Your task to perform on an android device: What's the news this month? Image 0: 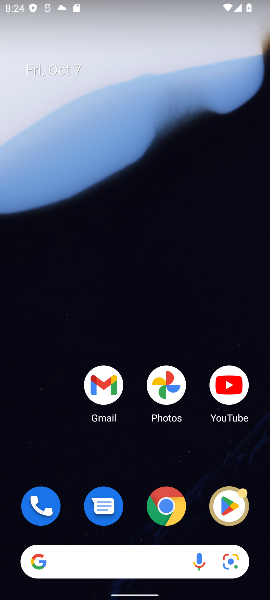
Step 0: click (164, 514)
Your task to perform on an android device: What's the news this month? Image 1: 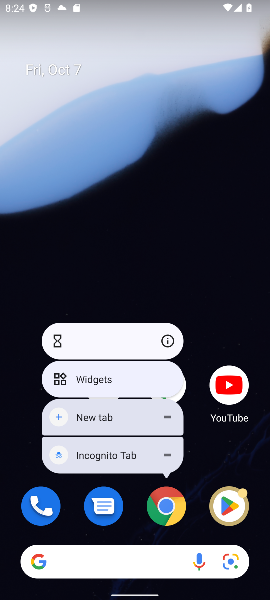
Step 1: click (172, 504)
Your task to perform on an android device: What's the news this month? Image 2: 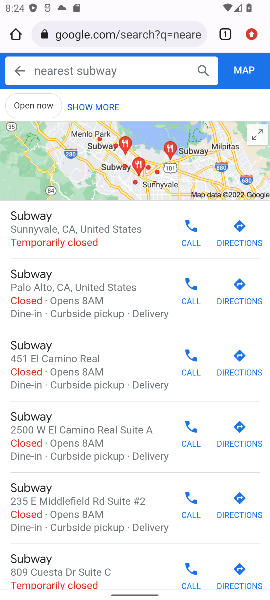
Step 2: click (113, 32)
Your task to perform on an android device: What's the news this month? Image 3: 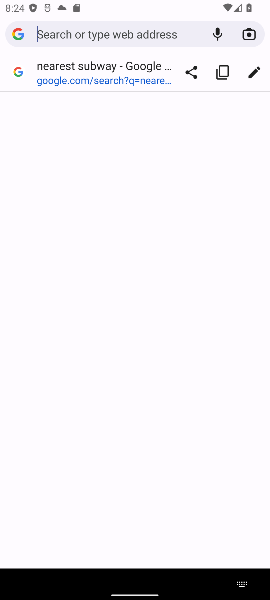
Step 3: type "news this month"
Your task to perform on an android device: What's the news this month? Image 4: 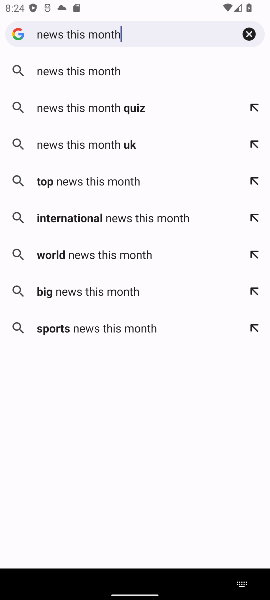
Step 4: click (77, 67)
Your task to perform on an android device: What's the news this month? Image 5: 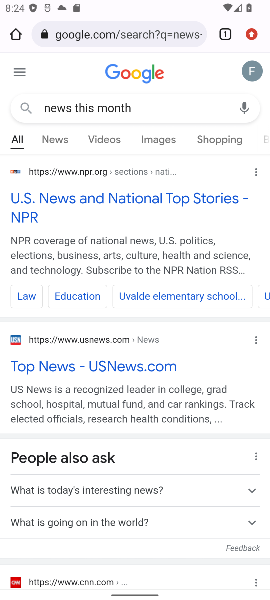
Step 5: click (43, 140)
Your task to perform on an android device: What's the news this month? Image 6: 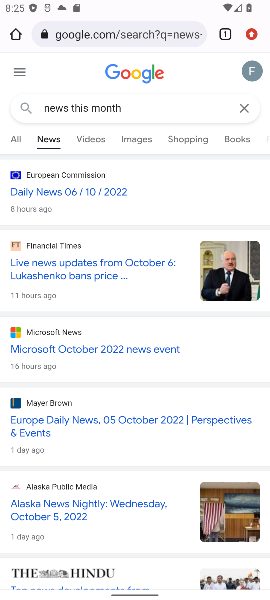
Step 6: task complete